Your task to perform on an android device: Go to wifi settings Image 0: 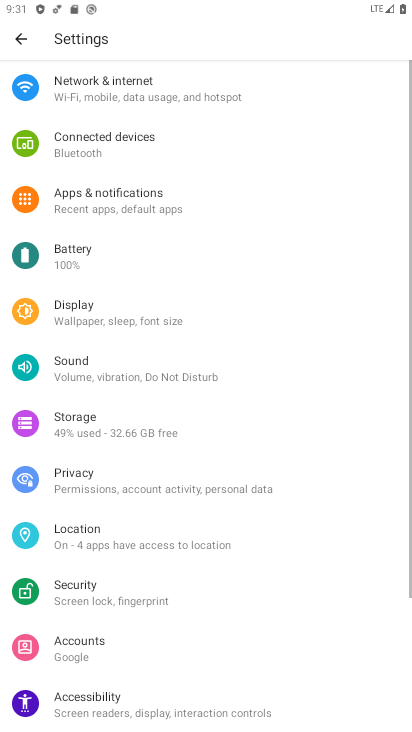
Step 0: press home button
Your task to perform on an android device: Go to wifi settings Image 1: 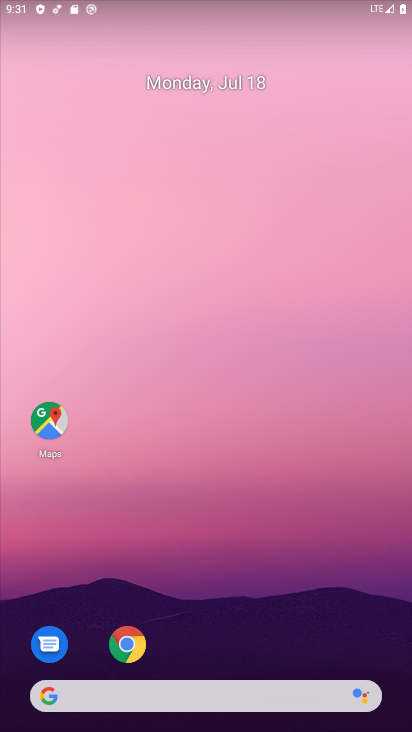
Step 1: drag from (355, 647) to (365, 75)
Your task to perform on an android device: Go to wifi settings Image 2: 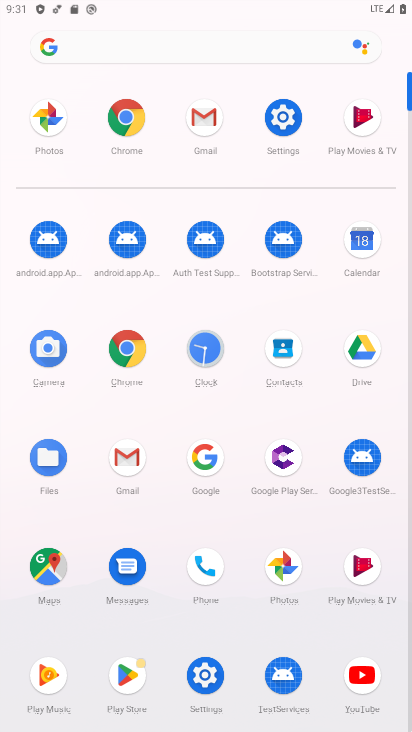
Step 2: click (283, 126)
Your task to perform on an android device: Go to wifi settings Image 3: 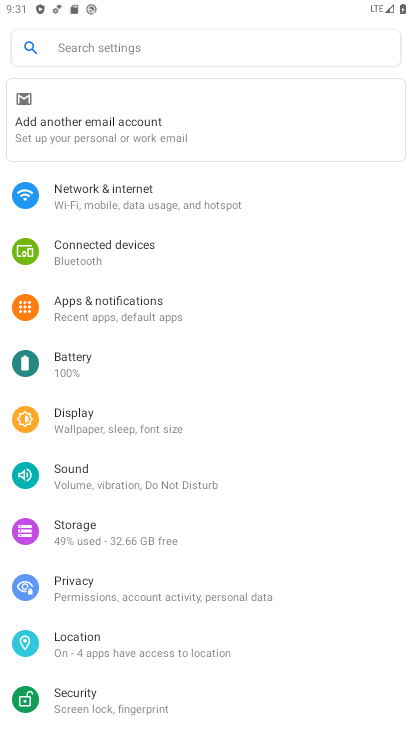
Step 3: drag from (322, 495) to (340, 336)
Your task to perform on an android device: Go to wifi settings Image 4: 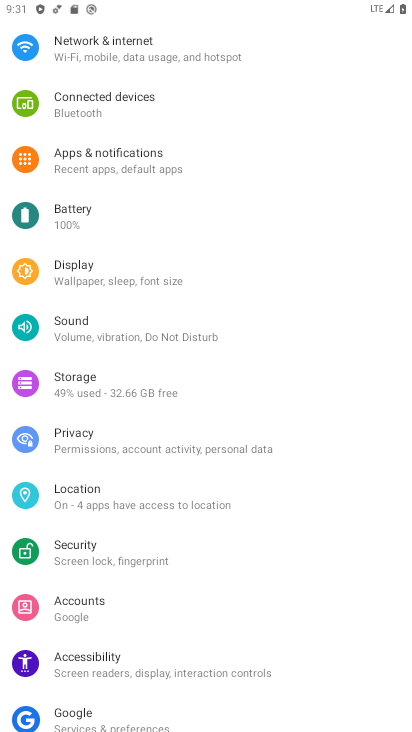
Step 4: drag from (349, 195) to (356, 334)
Your task to perform on an android device: Go to wifi settings Image 5: 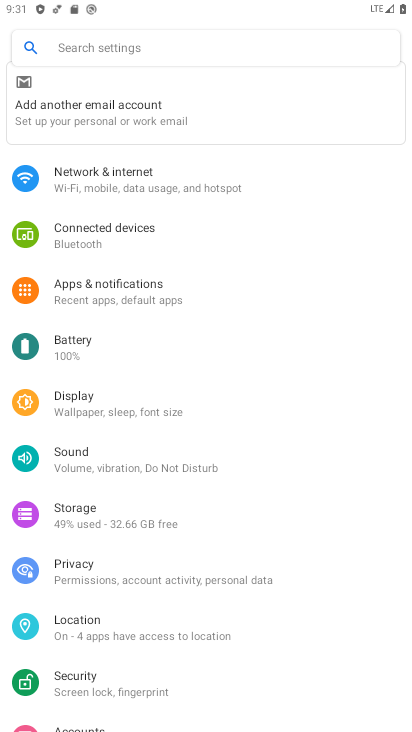
Step 5: drag from (340, 201) to (339, 323)
Your task to perform on an android device: Go to wifi settings Image 6: 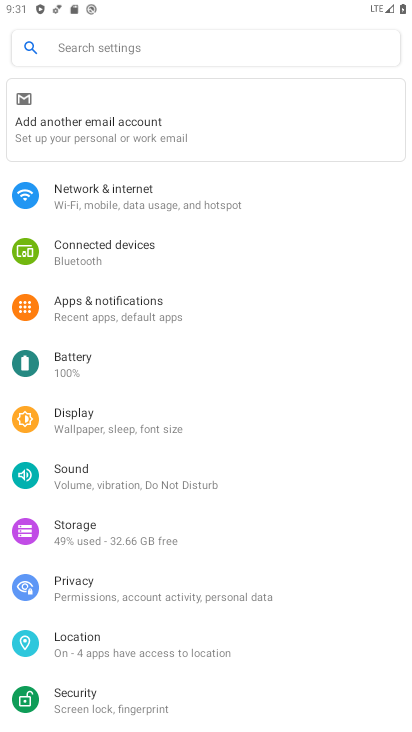
Step 6: click (239, 203)
Your task to perform on an android device: Go to wifi settings Image 7: 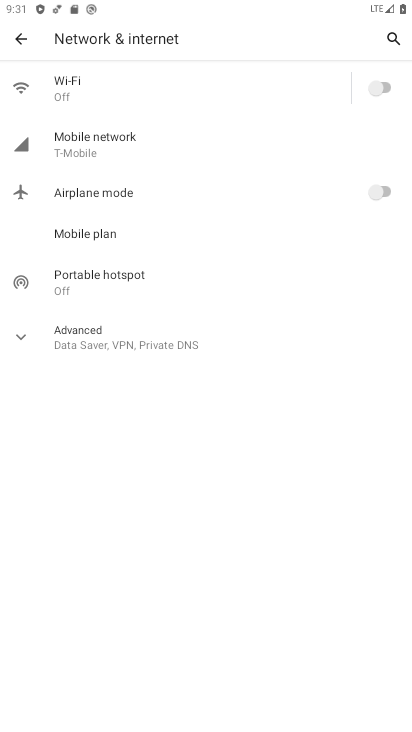
Step 7: click (162, 101)
Your task to perform on an android device: Go to wifi settings Image 8: 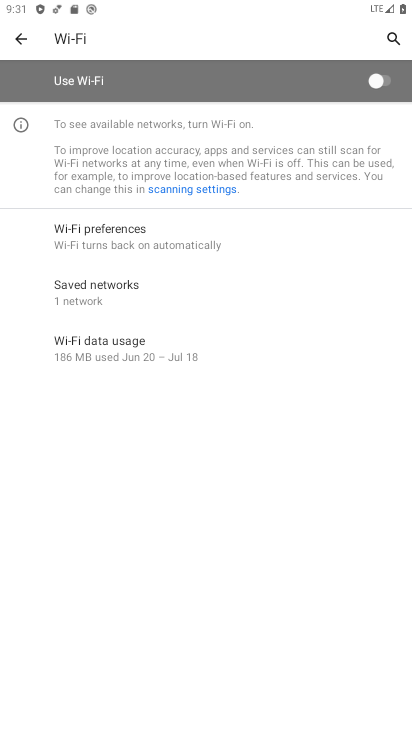
Step 8: task complete